Your task to perform on an android device: check google app version Image 0: 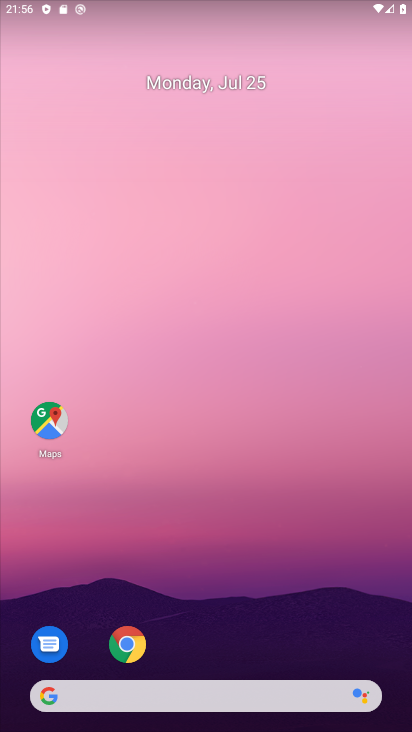
Step 0: drag from (238, 634) to (259, 32)
Your task to perform on an android device: check google app version Image 1: 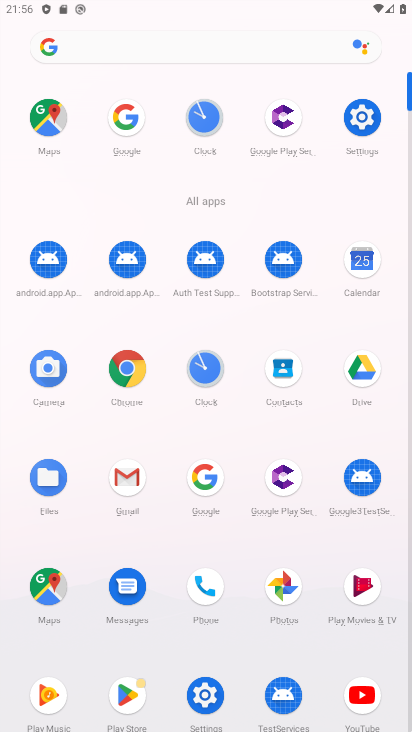
Step 1: click (204, 470)
Your task to perform on an android device: check google app version Image 2: 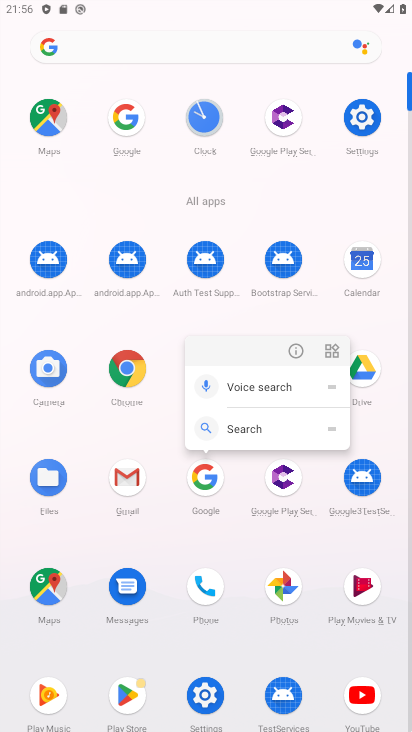
Step 2: click (290, 350)
Your task to perform on an android device: check google app version Image 3: 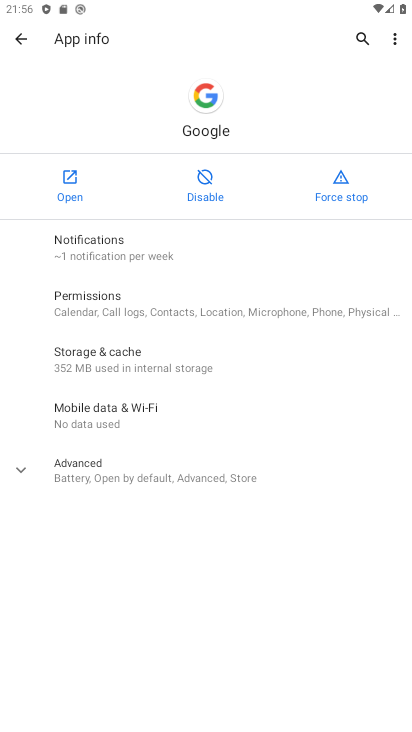
Step 3: click (170, 477)
Your task to perform on an android device: check google app version Image 4: 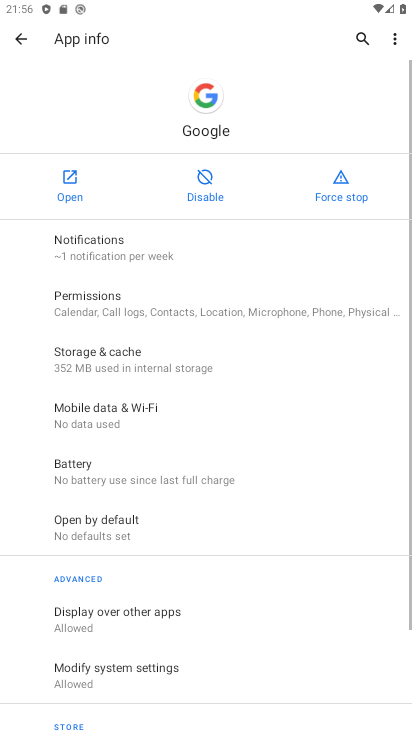
Step 4: task complete